Your task to perform on an android device: find photos in the google photos app Image 0: 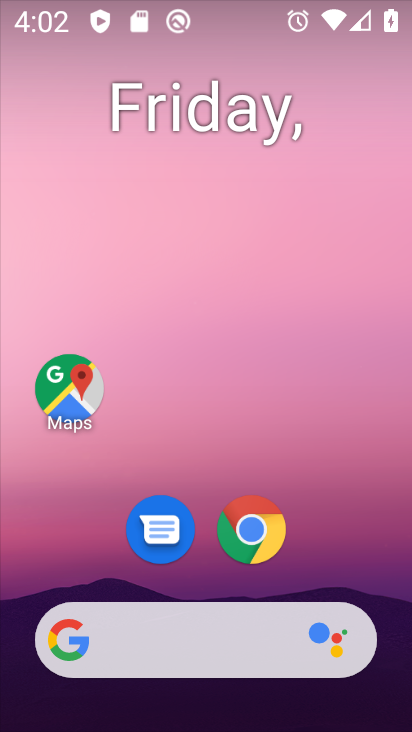
Step 0: drag from (66, 630) to (216, 163)
Your task to perform on an android device: find photos in the google photos app Image 1: 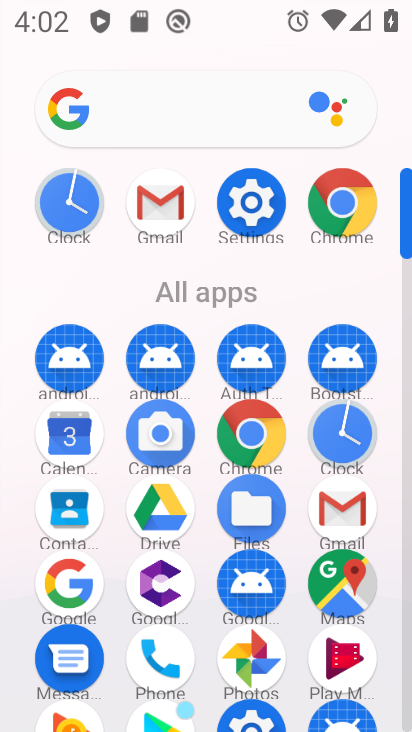
Step 1: drag from (132, 602) to (237, 350)
Your task to perform on an android device: find photos in the google photos app Image 2: 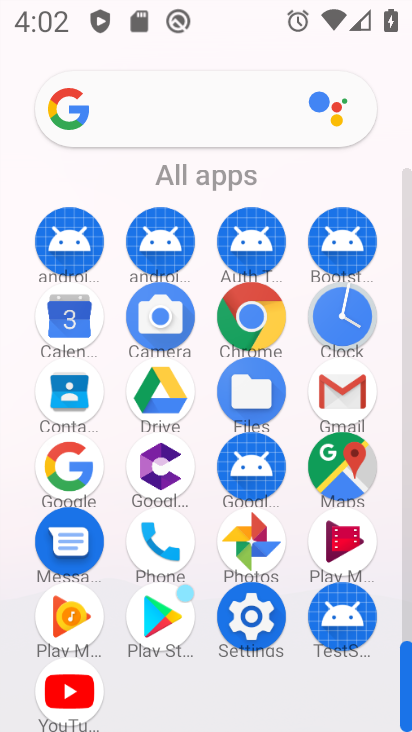
Step 2: click (254, 540)
Your task to perform on an android device: find photos in the google photos app Image 3: 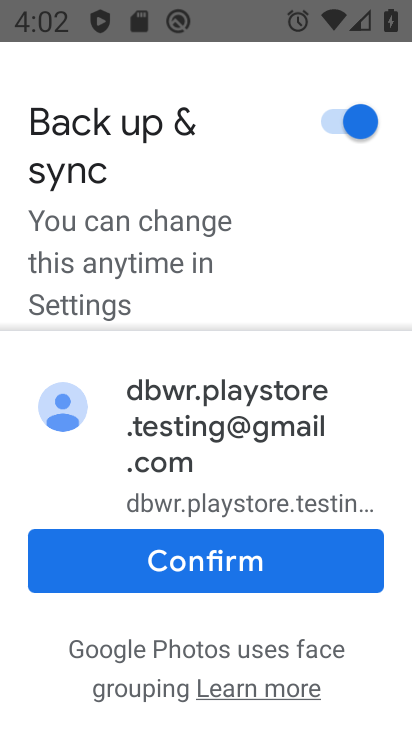
Step 3: click (234, 577)
Your task to perform on an android device: find photos in the google photos app Image 4: 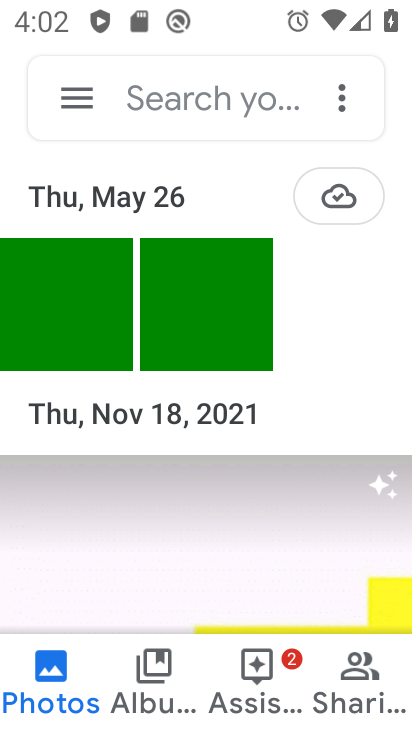
Step 4: task complete